Your task to perform on an android device: turn on location history Image 0: 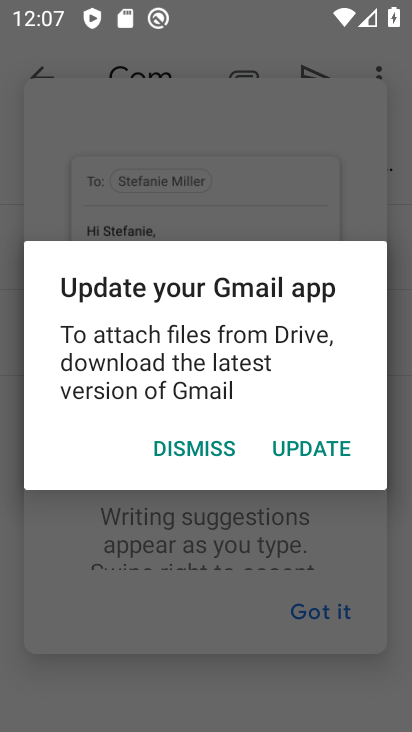
Step 0: press home button
Your task to perform on an android device: turn on location history Image 1: 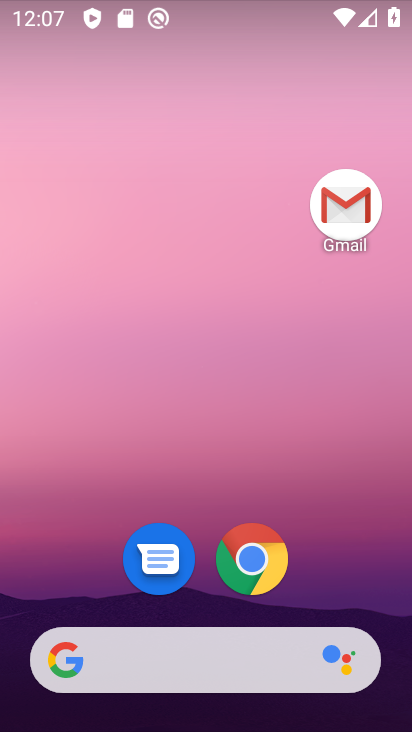
Step 1: drag from (320, 581) to (341, 83)
Your task to perform on an android device: turn on location history Image 2: 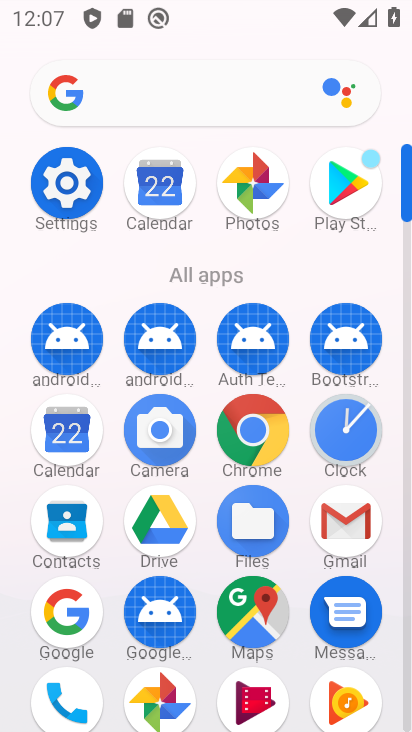
Step 2: click (63, 185)
Your task to perform on an android device: turn on location history Image 3: 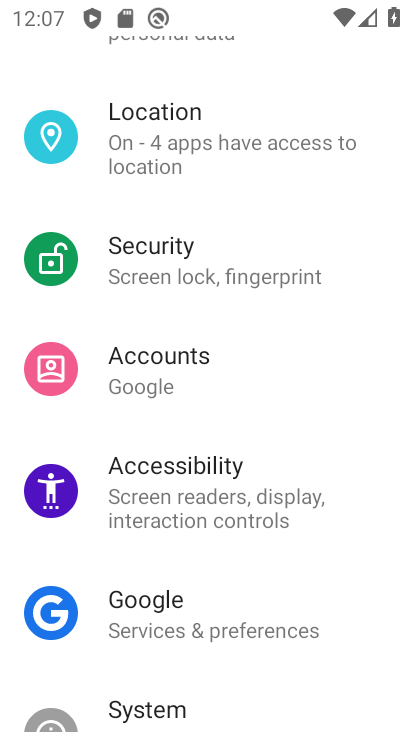
Step 3: drag from (360, 364) to (365, 495)
Your task to perform on an android device: turn on location history Image 4: 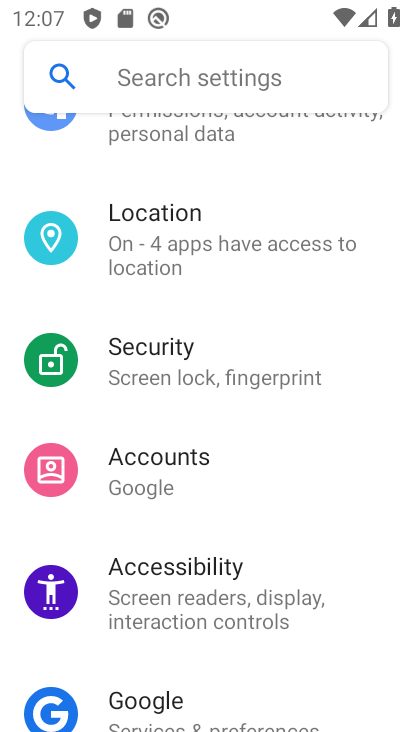
Step 4: drag from (375, 351) to (363, 498)
Your task to perform on an android device: turn on location history Image 5: 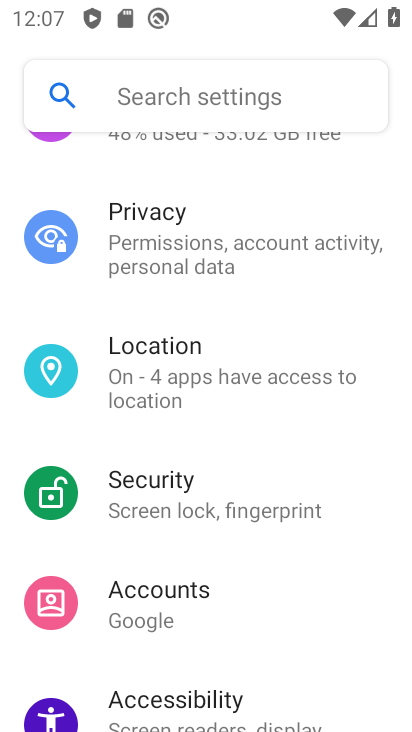
Step 5: drag from (384, 343) to (384, 485)
Your task to perform on an android device: turn on location history Image 6: 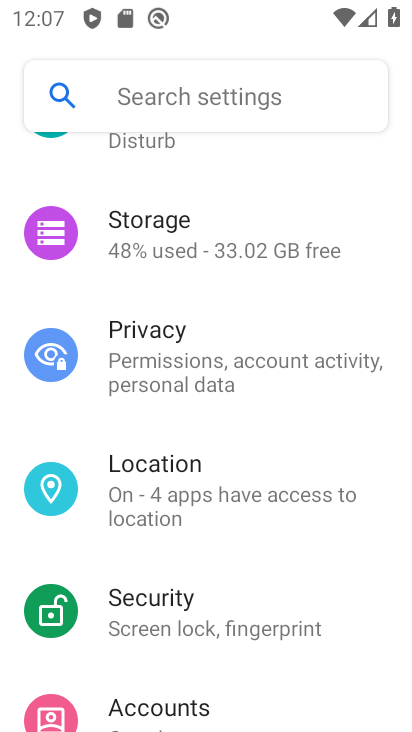
Step 6: click (216, 500)
Your task to perform on an android device: turn on location history Image 7: 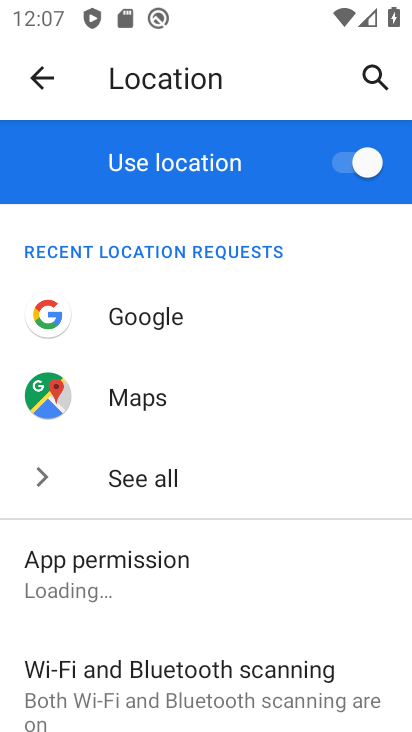
Step 7: drag from (314, 573) to (324, 415)
Your task to perform on an android device: turn on location history Image 8: 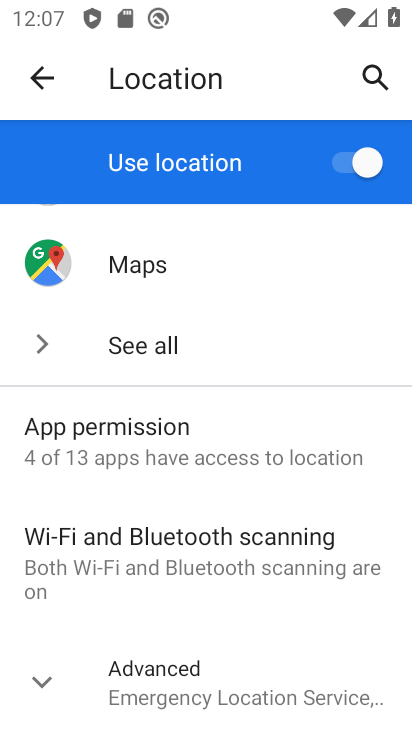
Step 8: drag from (336, 625) to (358, 450)
Your task to perform on an android device: turn on location history Image 9: 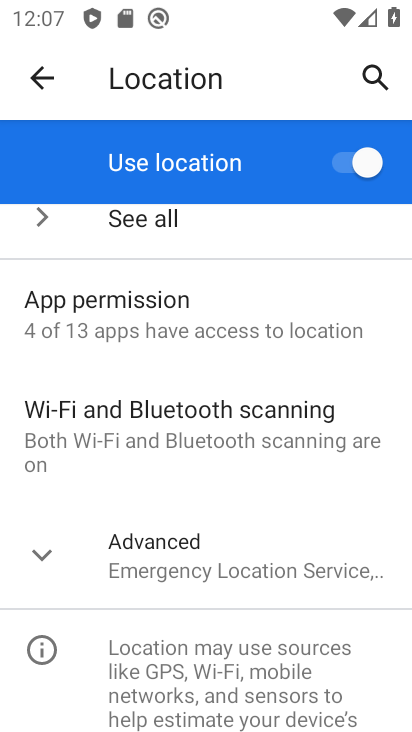
Step 9: click (310, 571)
Your task to perform on an android device: turn on location history Image 10: 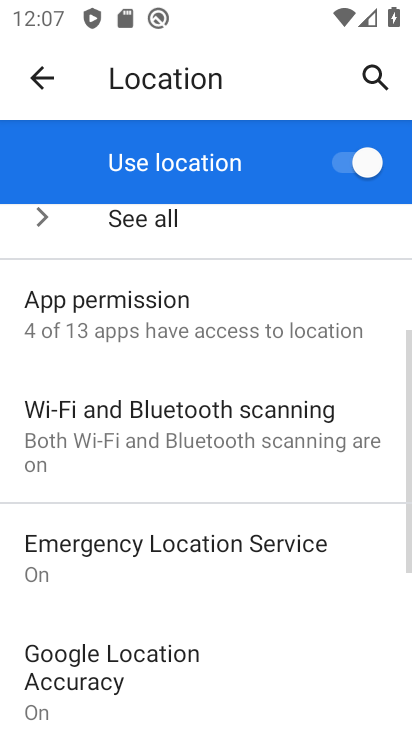
Step 10: drag from (308, 609) to (325, 481)
Your task to perform on an android device: turn on location history Image 11: 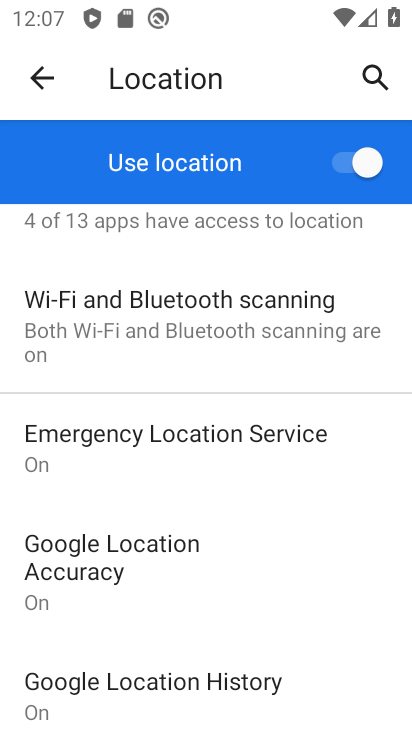
Step 11: drag from (349, 643) to (371, 473)
Your task to perform on an android device: turn on location history Image 12: 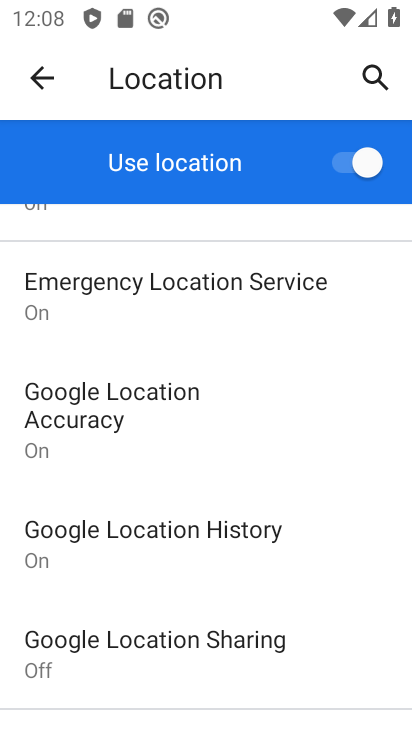
Step 12: click (256, 534)
Your task to perform on an android device: turn on location history Image 13: 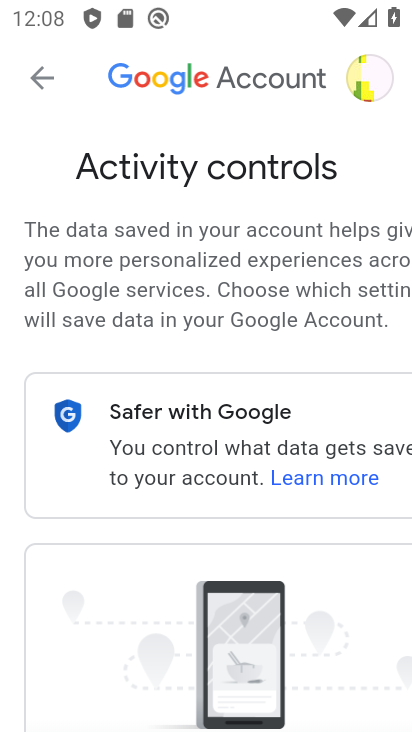
Step 13: drag from (319, 601) to (330, 400)
Your task to perform on an android device: turn on location history Image 14: 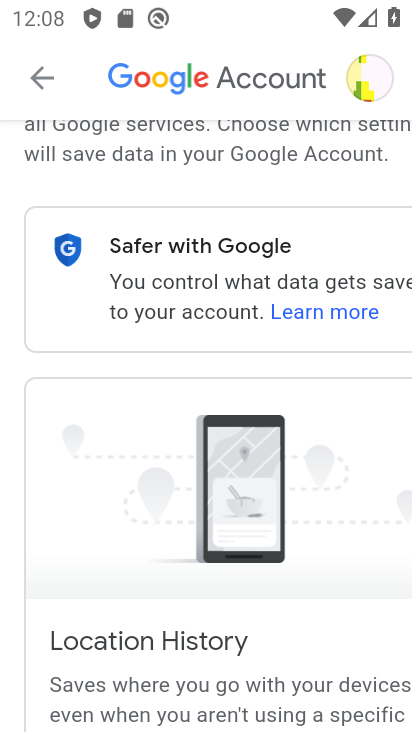
Step 14: drag from (339, 622) to (339, 475)
Your task to perform on an android device: turn on location history Image 15: 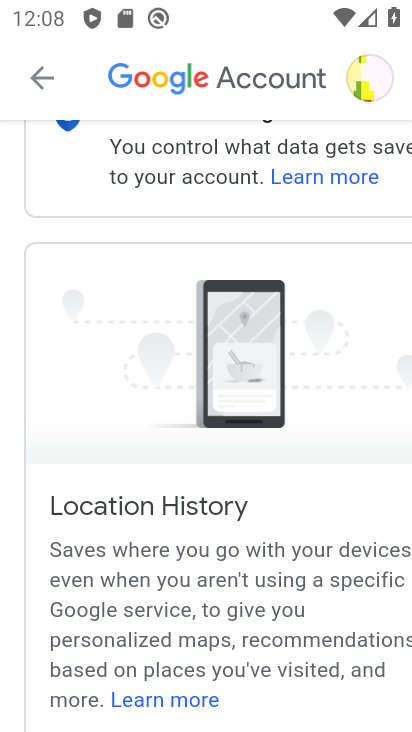
Step 15: drag from (318, 696) to (325, 483)
Your task to perform on an android device: turn on location history Image 16: 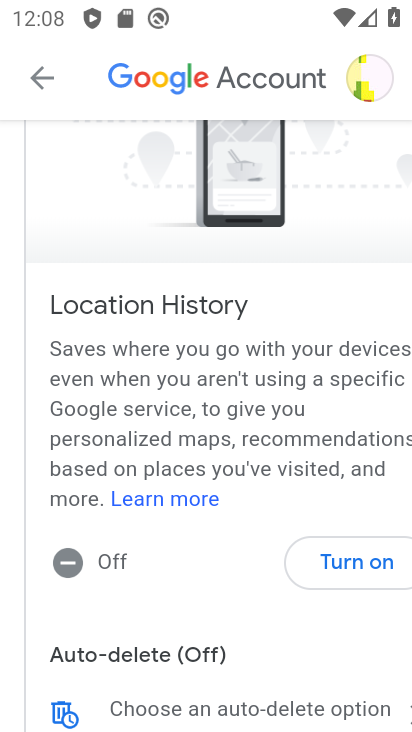
Step 16: click (361, 562)
Your task to perform on an android device: turn on location history Image 17: 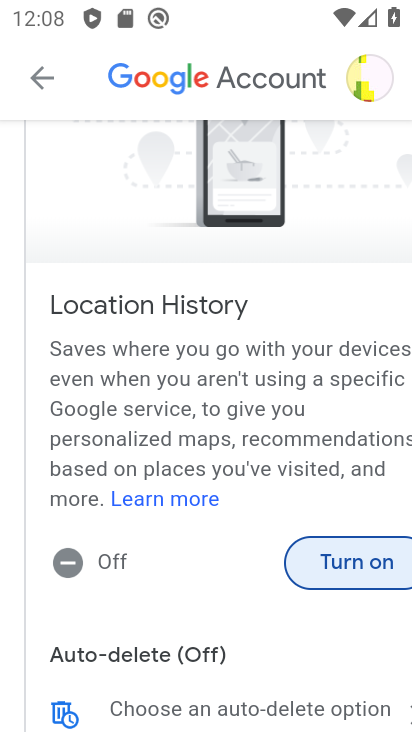
Step 17: click (358, 561)
Your task to perform on an android device: turn on location history Image 18: 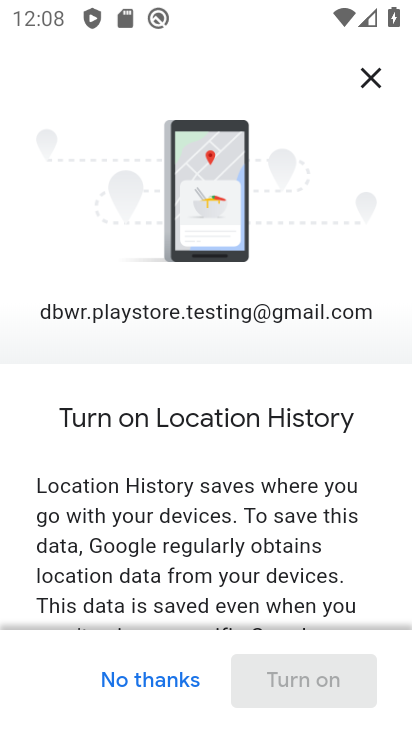
Step 18: drag from (248, 577) to (267, 401)
Your task to perform on an android device: turn on location history Image 19: 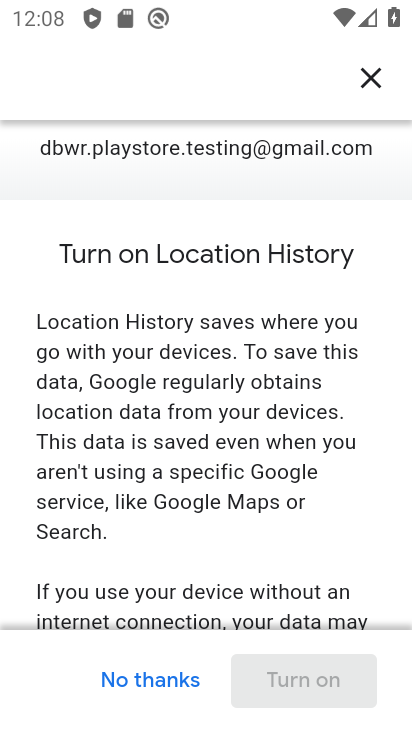
Step 19: drag from (285, 558) to (289, 317)
Your task to perform on an android device: turn on location history Image 20: 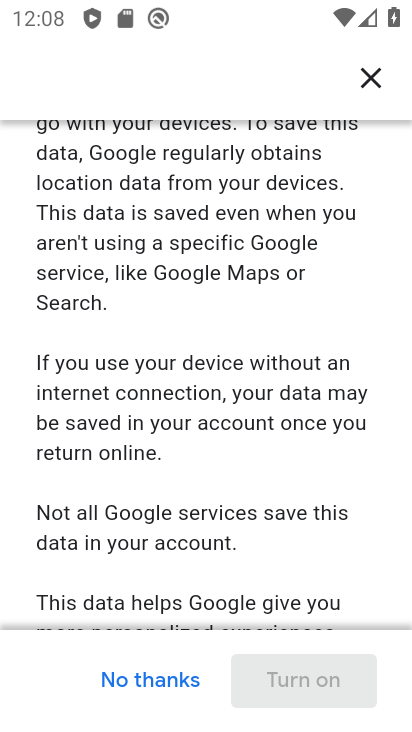
Step 20: drag from (282, 566) to (298, 362)
Your task to perform on an android device: turn on location history Image 21: 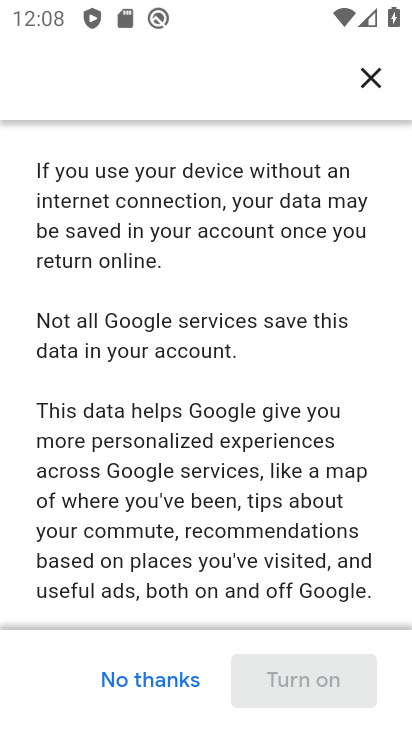
Step 21: drag from (278, 563) to (292, 347)
Your task to perform on an android device: turn on location history Image 22: 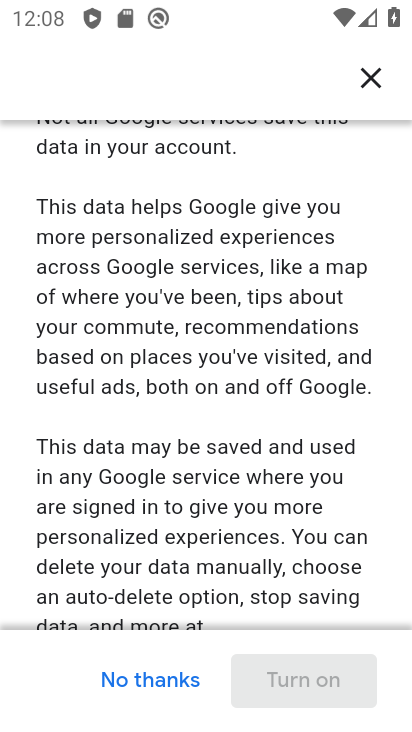
Step 22: drag from (251, 555) to (256, 400)
Your task to perform on an android device: turn on location history Image 23: 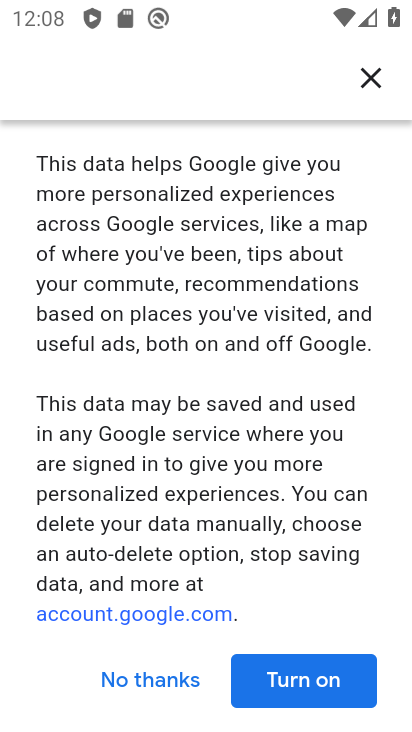
Step 23: click (293, 693)
Your task to perform on an android device: turn on location history Image 24: 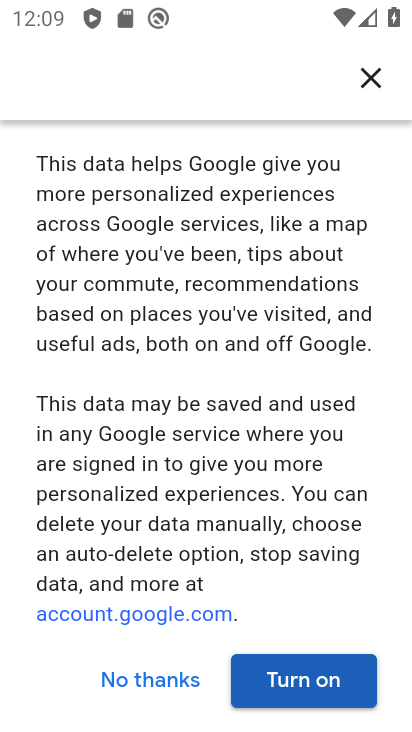
Step 24: click (310, 679)
Your task to perform on an android device: turn on location history Image 25: 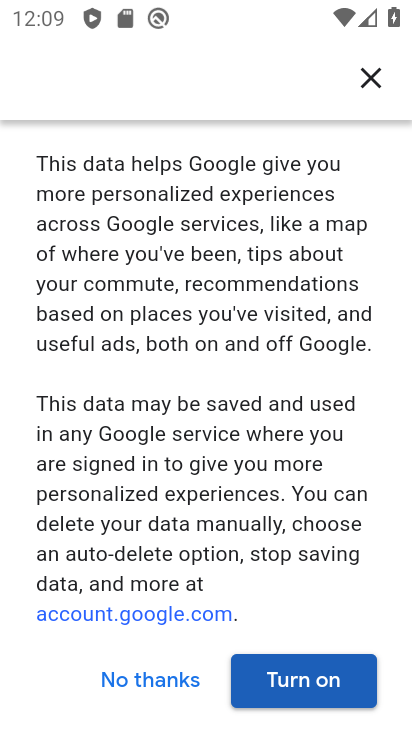
Step 25: click (330, 675)
Your task to perform on an android device: turn on location history Image 26: 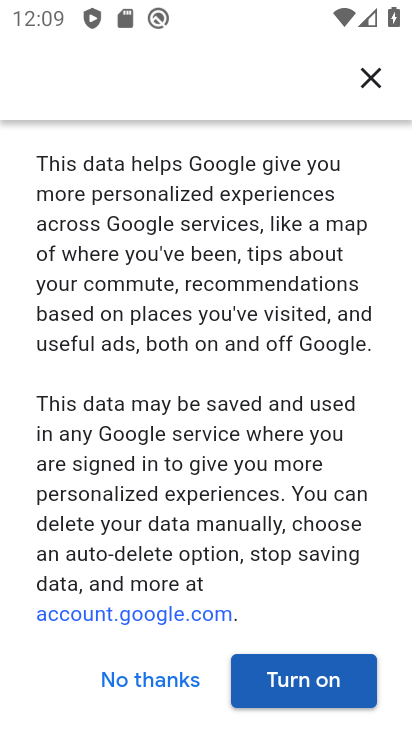
Step 26: click (315, 684)
Your task to perform on an android device: turn on location history Image 27: 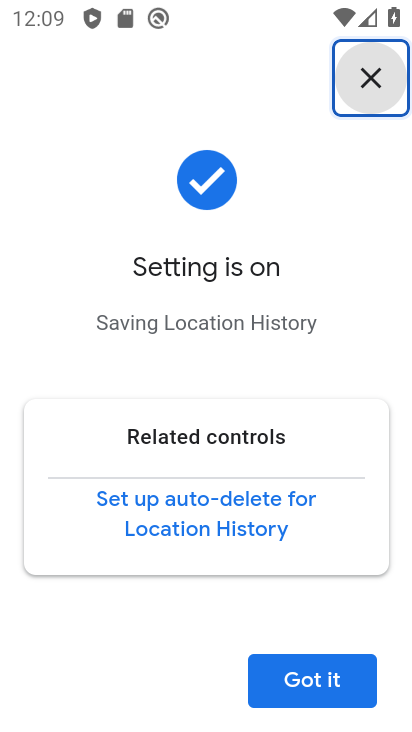
Step 27: task complete